Your task to perform on an android device: see sites visited before in the chrome app Image 0: 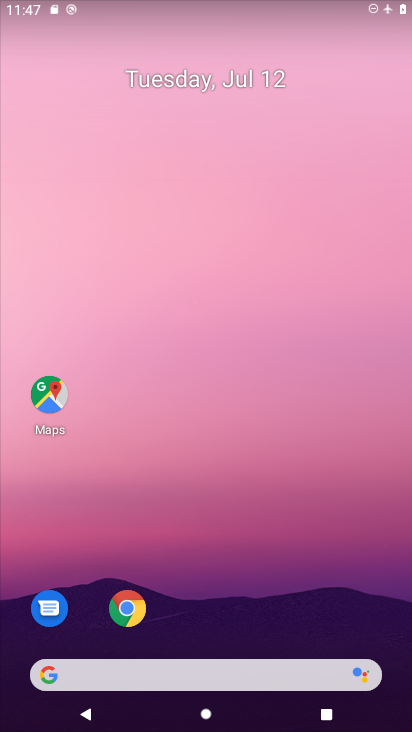
Step 0: drag from (239, 694) to (222, 179)
Your task to perform on an android device: see sites visited before in the chrome app Image 1: 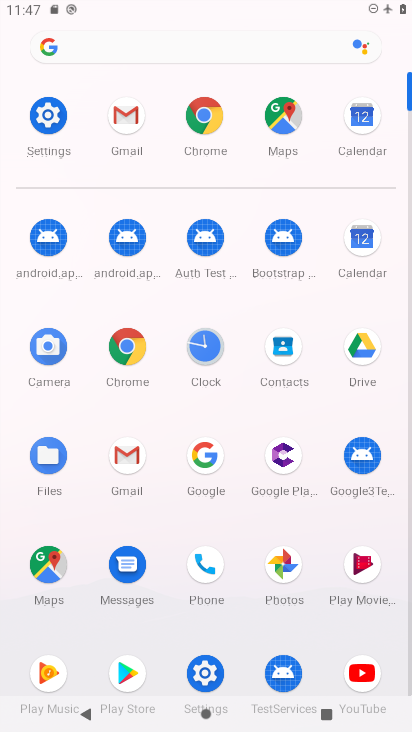
Step 1: click (205, 117)
Your task to perform on an android device: see sites visited before in the chrome app Image 2: 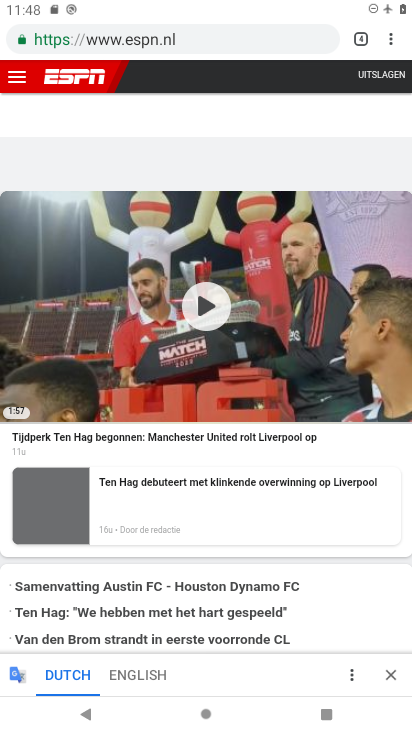
Step 2: click (392, 44)
Your task to perform on an android device: see sites visited before in the chrome app Image 3: 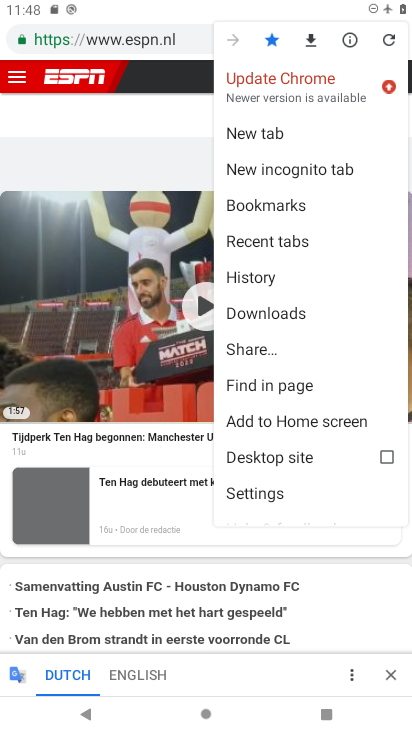
Step 3: click (247, 280)
Your task to perform on an android device: see sites visited before in the chrome app Image 4: 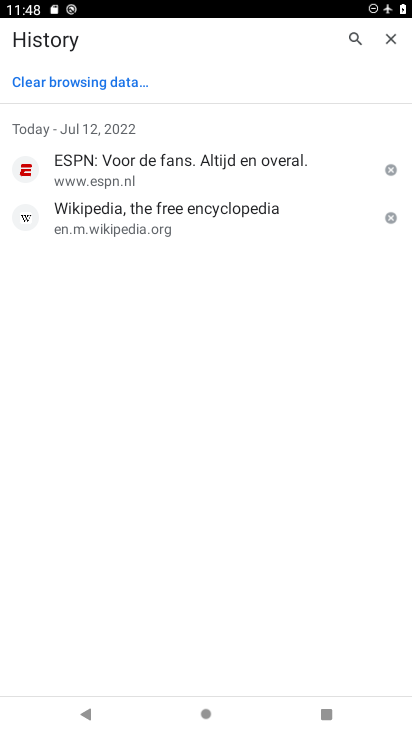
Step 4: task complete